Your task to perform on an android device: Open Youtube and go to "Your channel" Image 0: 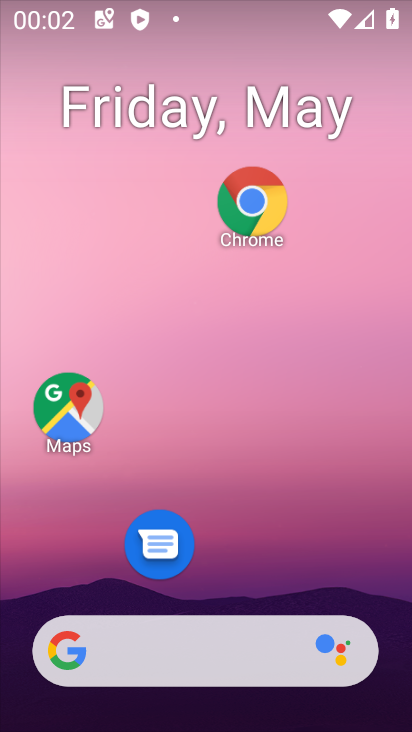
Step 0: drag from (232, 594) to (230, 119)
Your task to perform on an android device: Open Youtube and go to "Your channel" Image 1: 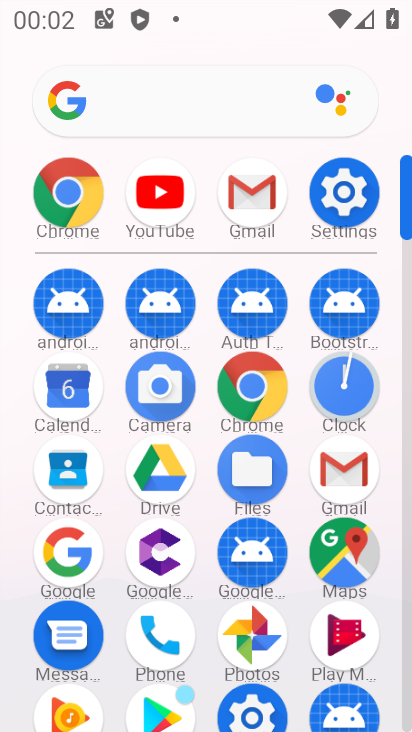
Step 1: click (157, 183)
Your task to perform on an android device: Open Youtube and go to "Your channel" Image 2: 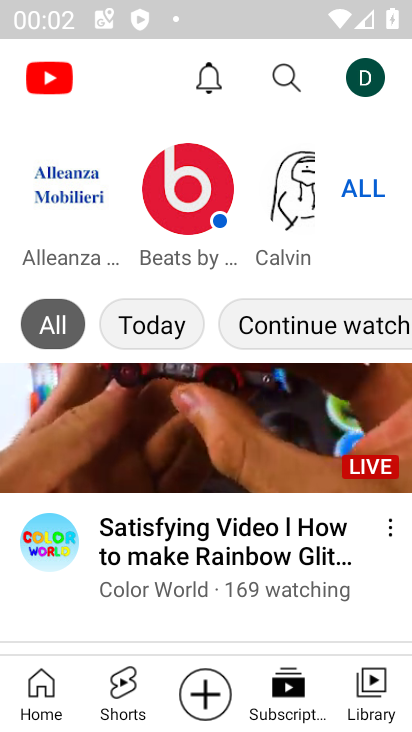
Step 2: click (370, 77)
Your task to perform on an android device: Open Youtube and go to "Your channel" Image 3: 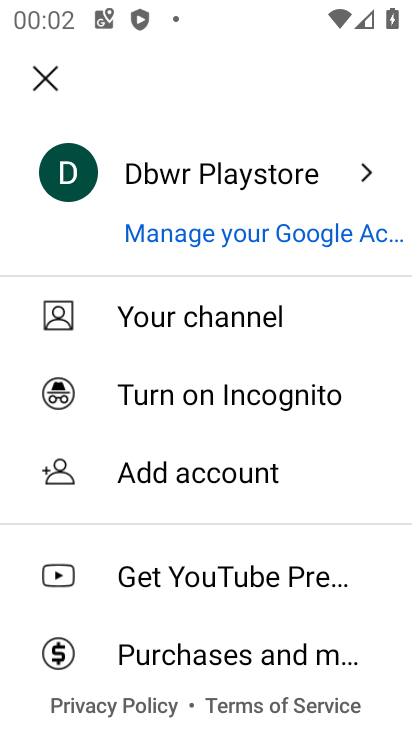
Step 3: click (101, 317)
Your task to perform on an android device: Open Youtube and go to "Your channel" Image 4: 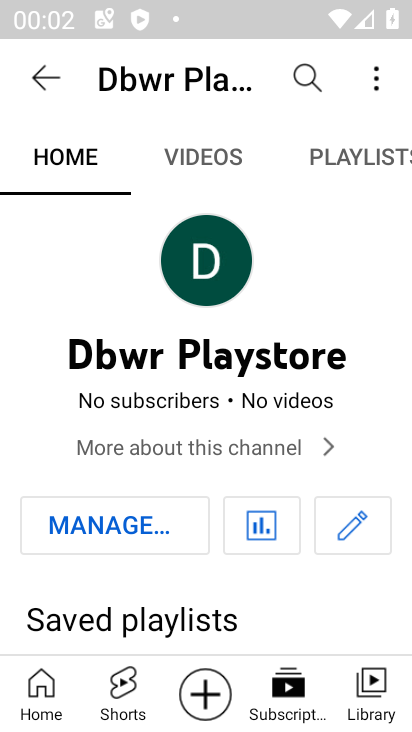
Step 4: task complete